Your task to perform on an android device: Open calendar and show me the first week of next month Image 0: 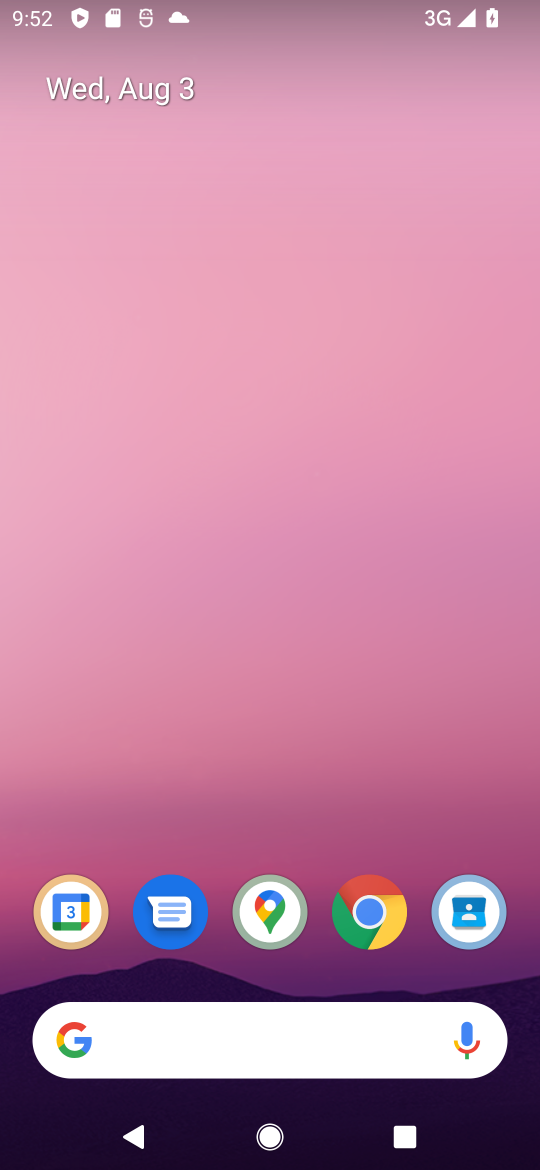
Step 0: drag from (450, 133) to (455, 65)
Your task to perform on an android device: Open calendar and show me the first week of next month Image 1: 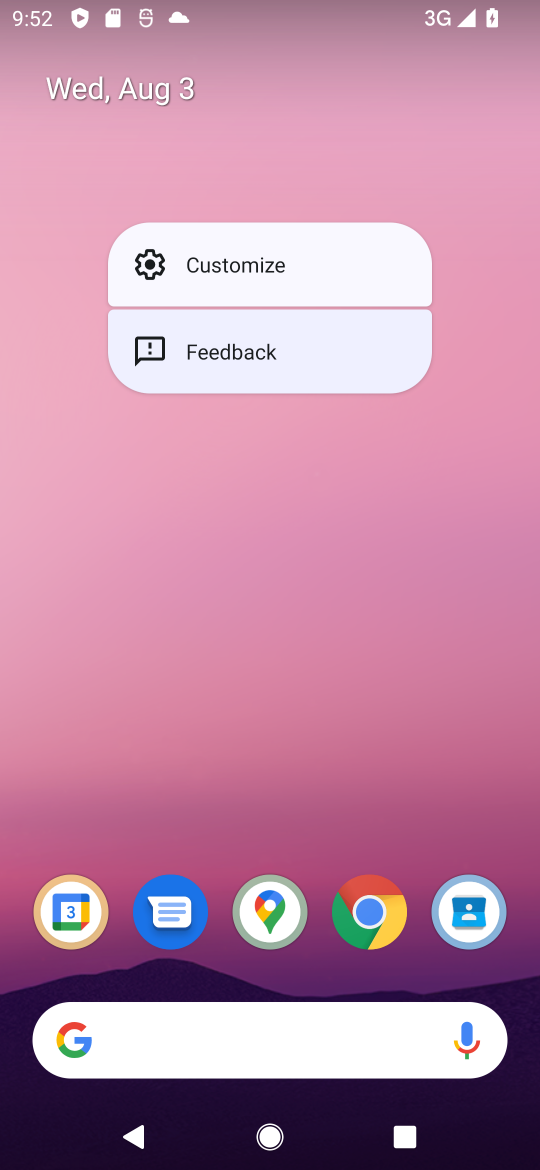
Step 1: click (403, 735)
Your task to perform on an android device: Open calendar and show me the first week of next month Image 2: 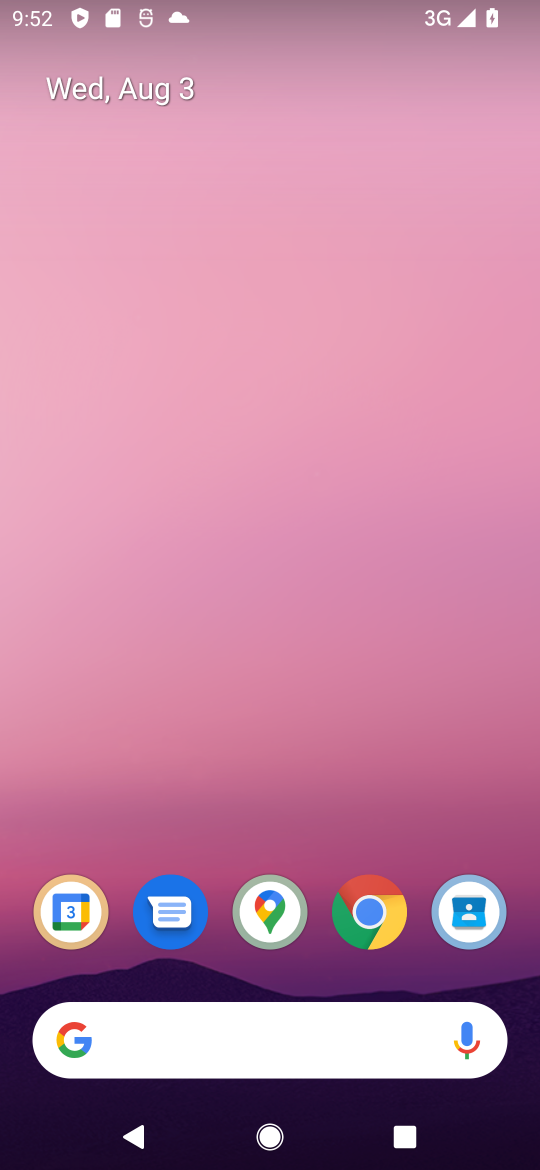
Step 2: drag from (367, 728) to (303, 0)
Your task to perform on an android device: Open calendar and show me the first week of next month Image 3: 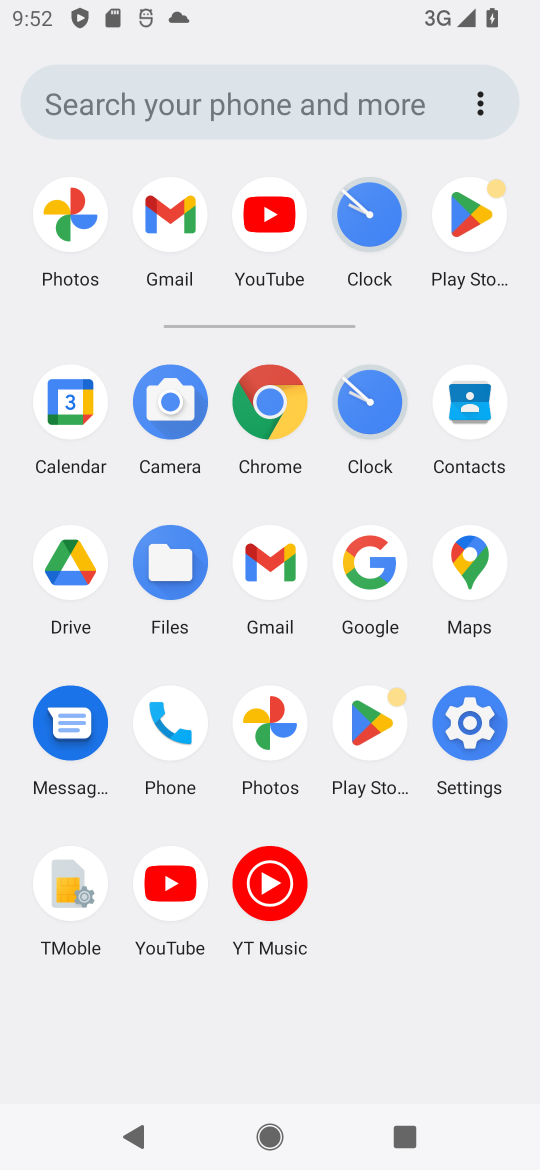
Step 3: click (87, 405)
Your task to perform on an android device: Open calendar and show me the first week of next month Image 4: 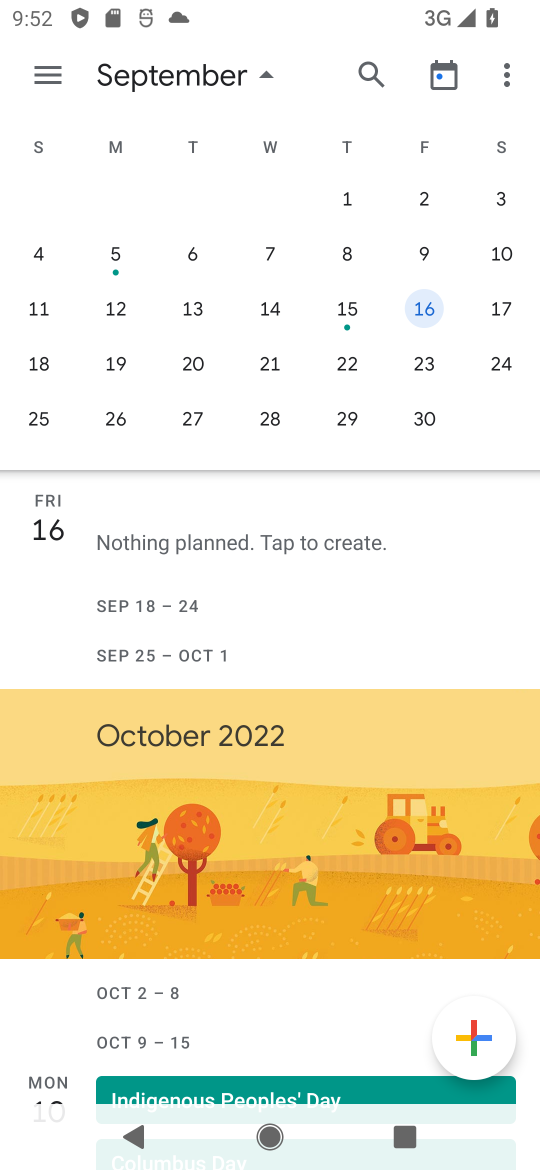
Step 4: drag from (353, 389) to (1, 198)
Your task to perform on an android device: Open calendar and show me the first week of next month Image 5: 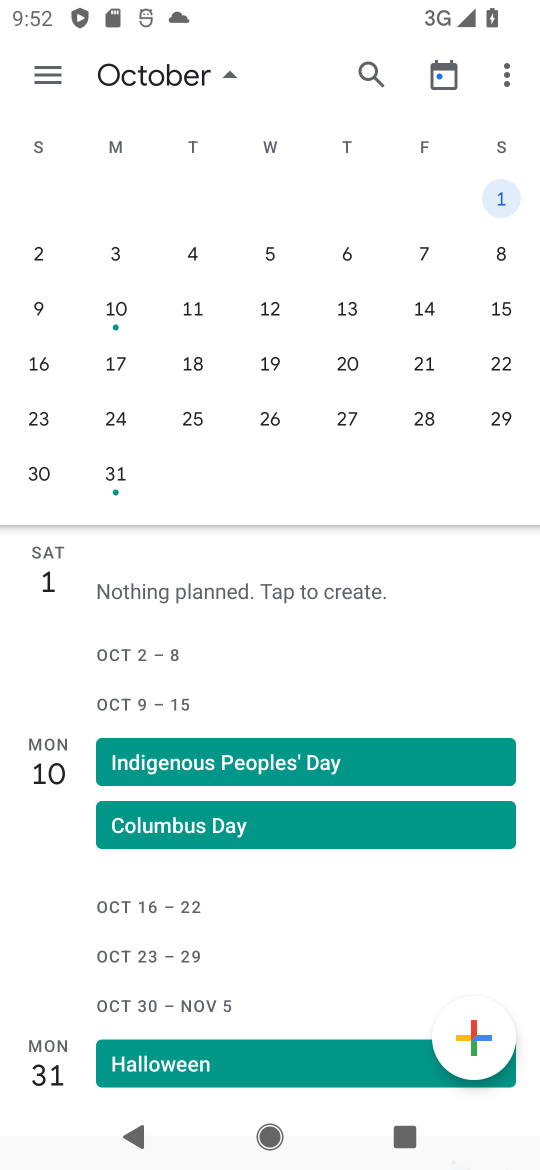
Step 5: click (431, 250)
Your task to perform on an android device: Open calendar and show me the first week of next month Image 6: 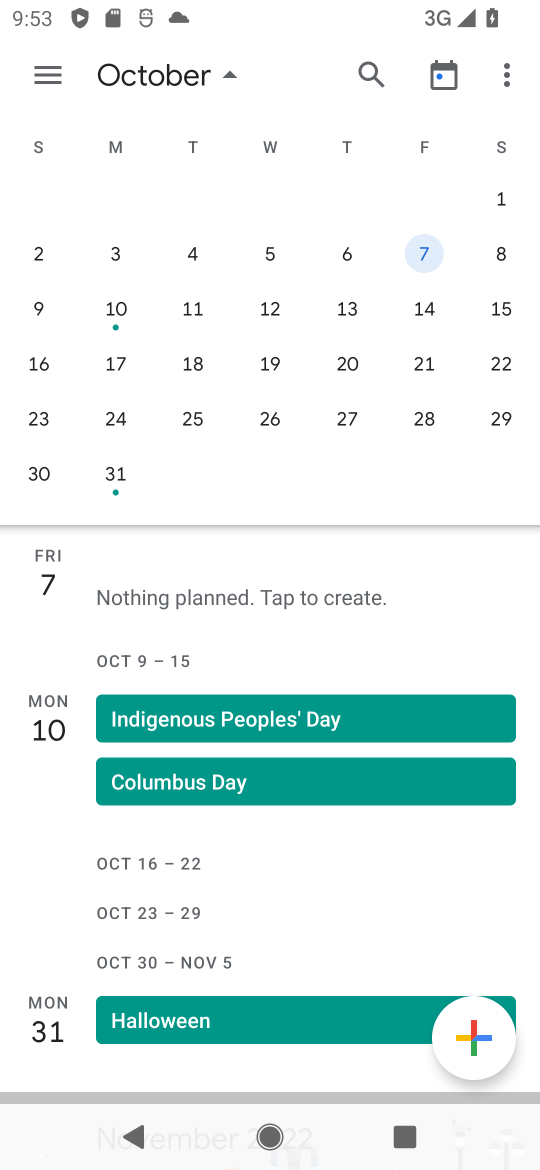
Step 6: task complete